Your task to perform on an android device: Go to eBay Image 0: 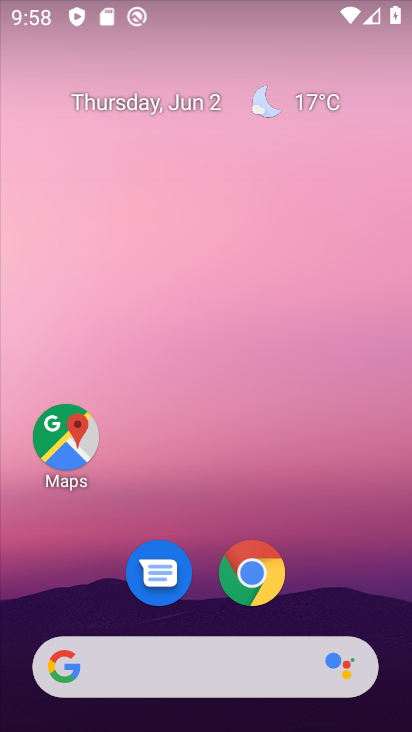
Step 0: drag from (358, 566) to (269, 21)
Your task to perform on an android device: Go to eBay Image 1: 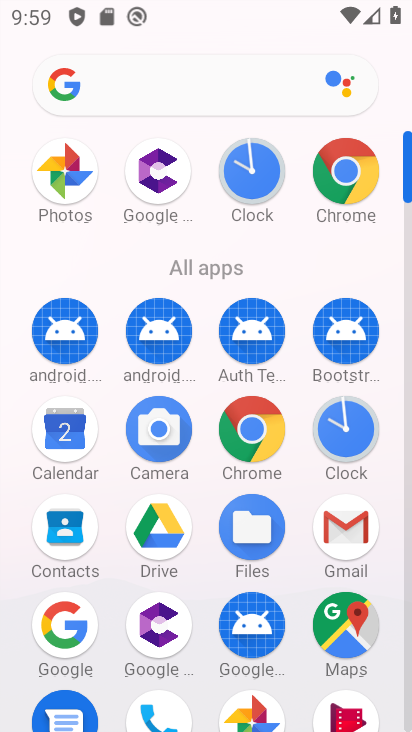
Step 1: click (342, 178)
Your task to perform on an android device: Go to eBay Image 2: 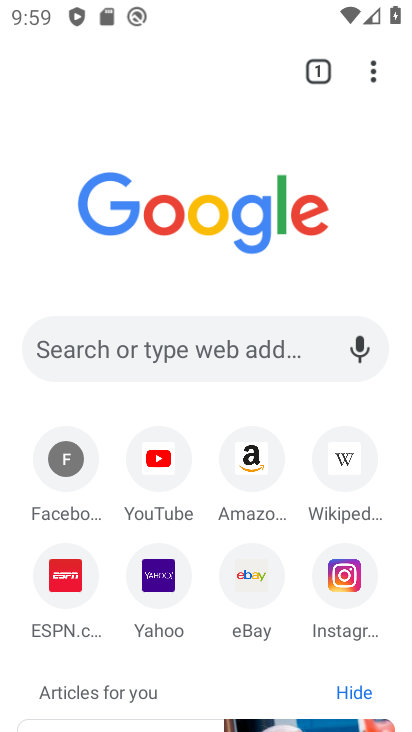
Step 2: click (272, 575)
Your task to perform on an android device: Go to eBay Image 3: 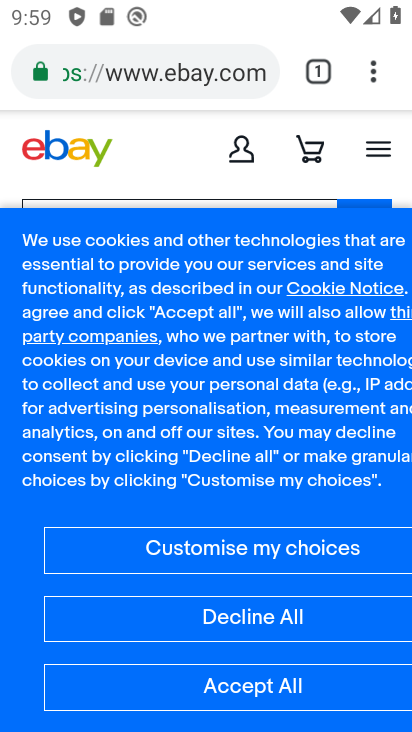
Step 3: task complete